Your task to perform on an android device: Go to Android settings Image 0: 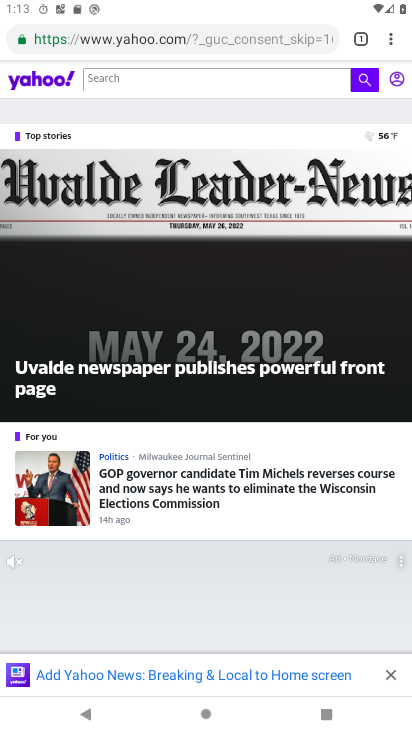
Step 0: press home button
Your task to perform on an android device: Go to Android settings Image 1: 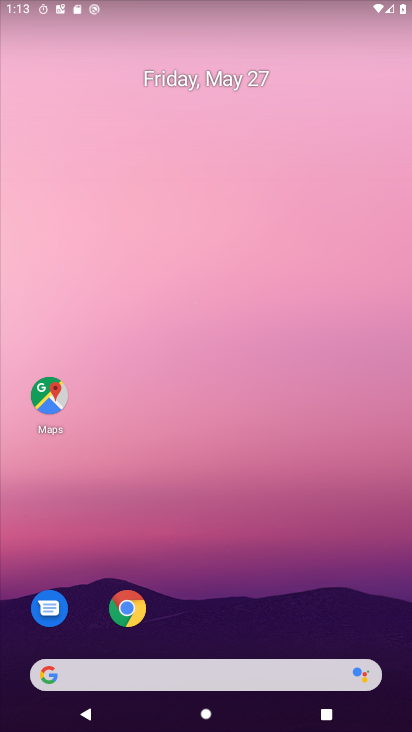
Step 1: drag from (379, 624) to (349, 197)
Your task to perform on an android device: Go to Android settings Image 2: 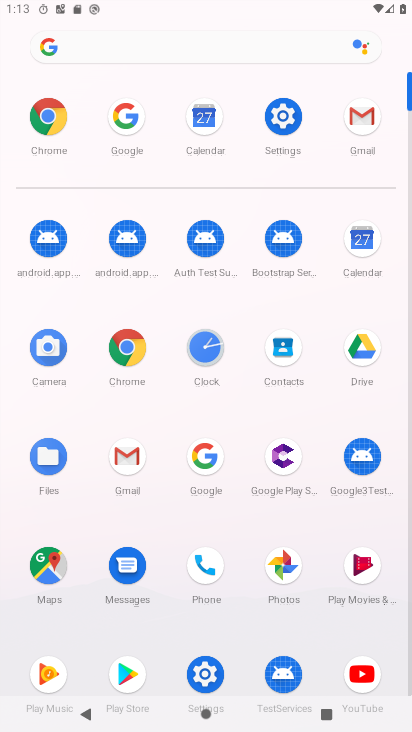
Step 2: click (279, 120)
Your task to perform on an android device: Go to Android settings Image 3: 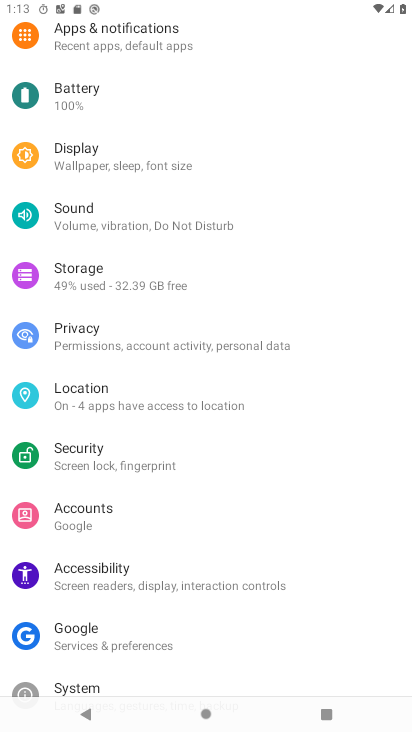
Step 3: task complete